Your task to perform on an android device: change the clock display to analog Image 0: 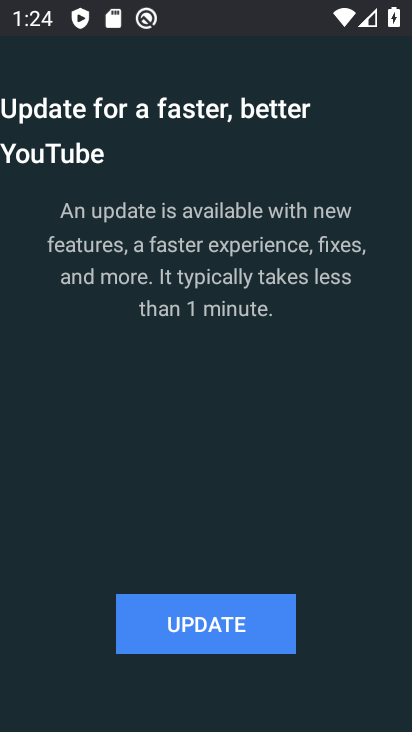
Step 0: press home button
Your task to perform on an android device: change the clock display to analog Image 1: 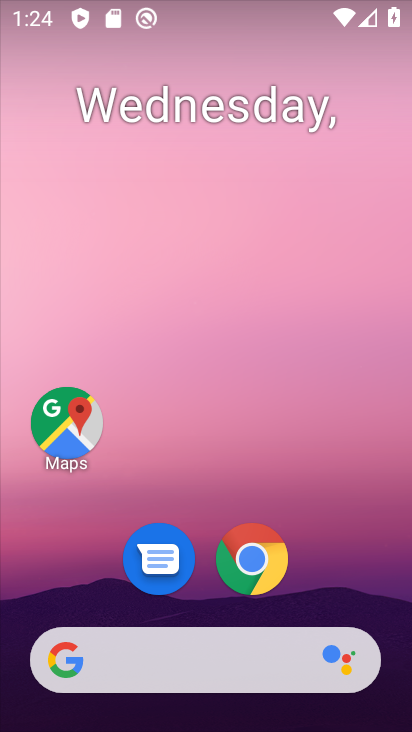
Step 1: drag from (331, 561) to (310, 94)
Your task to perform on an android device: change the clock display to analog Image 2: 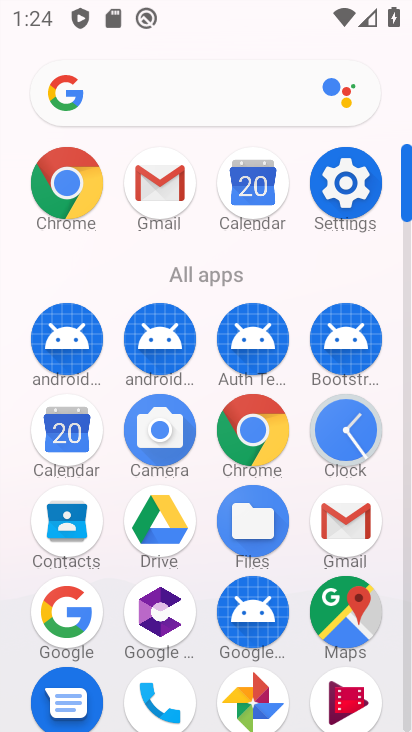
Step 2: click (350, 421)
Your task to perform on an android device: change the clock display to analog Image 3: 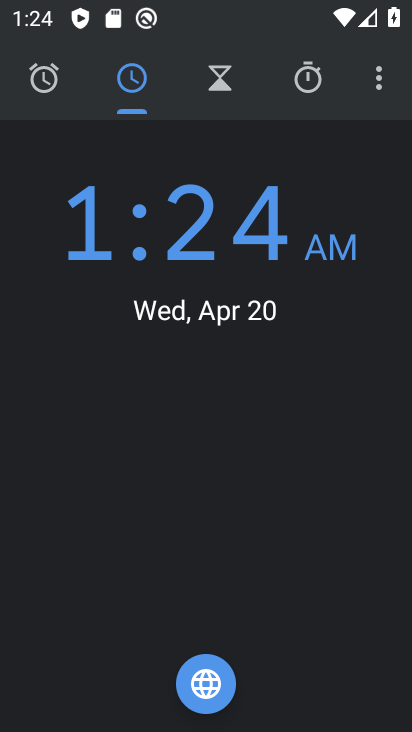
Step 3: click (382, 80)
Your task to perform on an android device: change the clock display to analog Image 4: 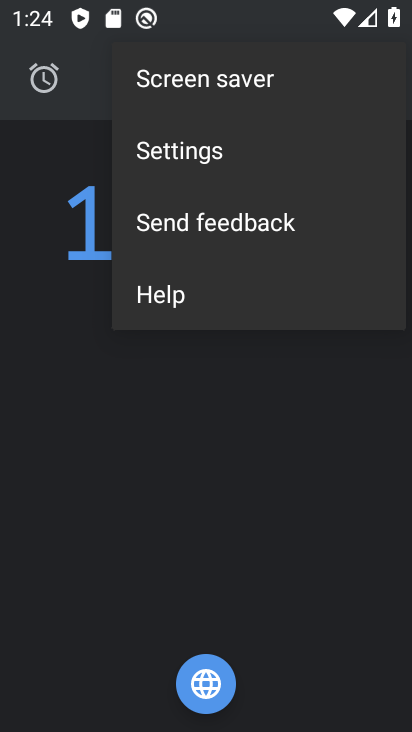
Step 4: click (218, 157)
Your task to perform on an android device: change the clock display to analog Image 5: 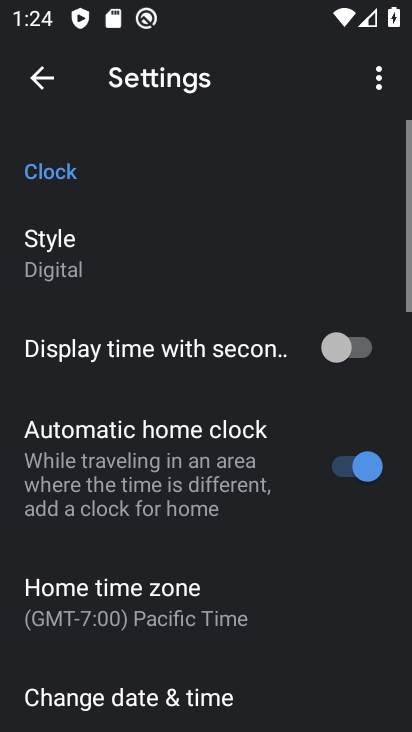
Step 5: click (65, 264)
Your task to perform on an android device: change the clock display to analog Image 6: 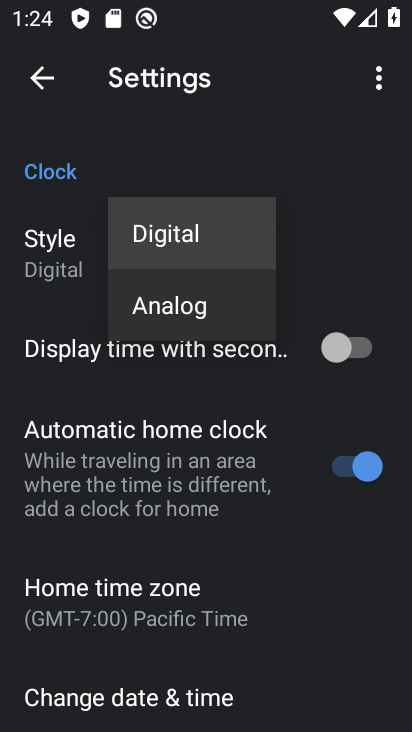
Step 6: click (218, 306)
Your task to perform on an android device: change the clock display to analog Image 7: 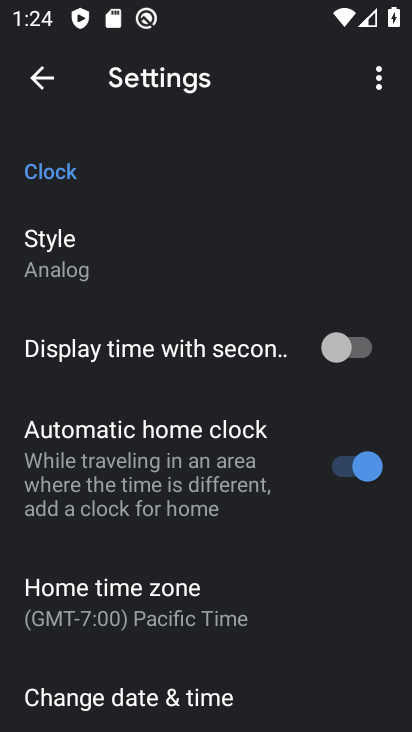
Step 7: task complete